Your task to perform on an android device: turn off sleep mode Image 0: 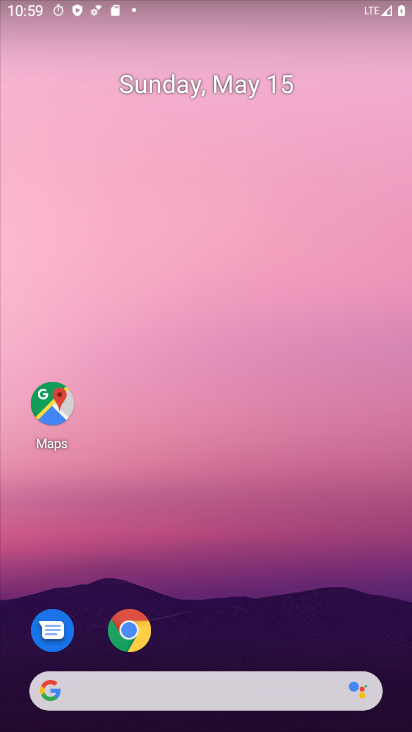
Step 0: drag from (292, 582) to (291, 118)
Your task to perform on an android device: turn off sleep mode Image 1: 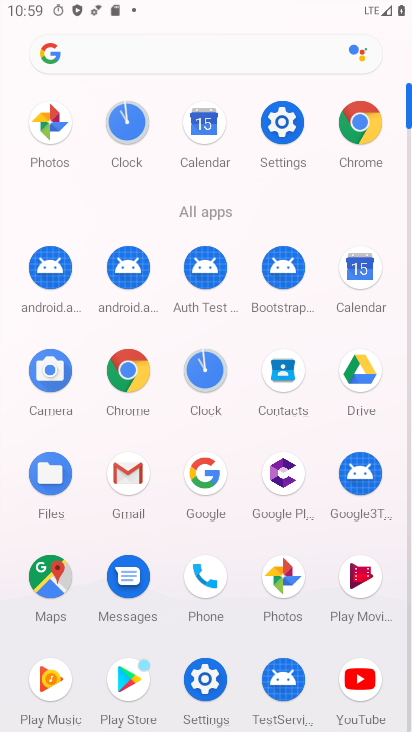
Step 1: click (272, 118)
Your task to perform on an android device: turn off sleep mode Image 2: 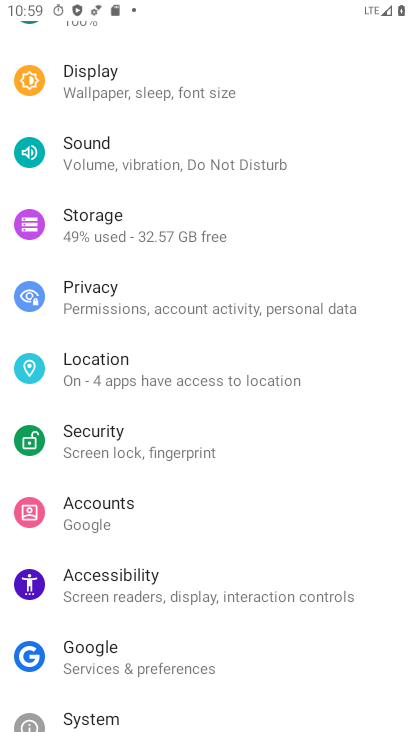
Step 2: drag from (207, 150) to (144, 668)
Your task to perform on an android device: turn off sleep mode Image 3: 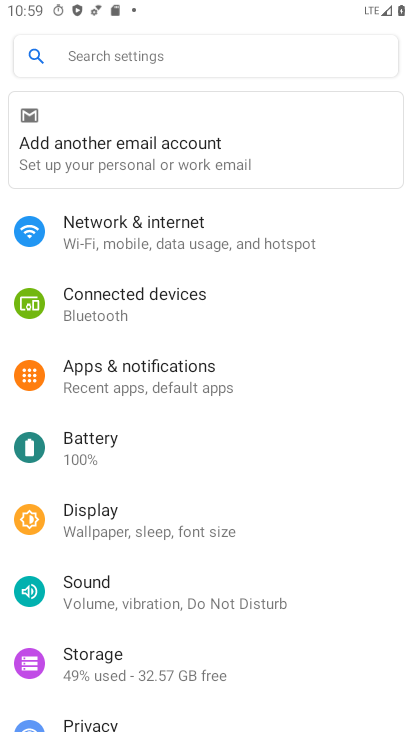
Step 3: click (91, 54)
Your task to perform on an android device: turn off sleep mode Image 4: 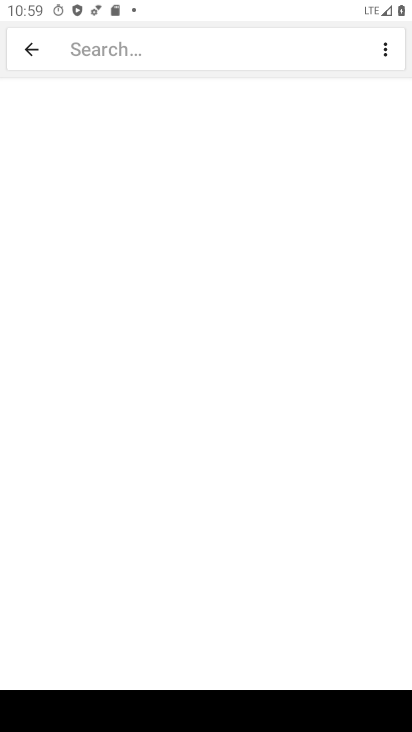
Step 4: type "sleep mode"
Your task to perform on an android device: turn off sleep mode Image 5: 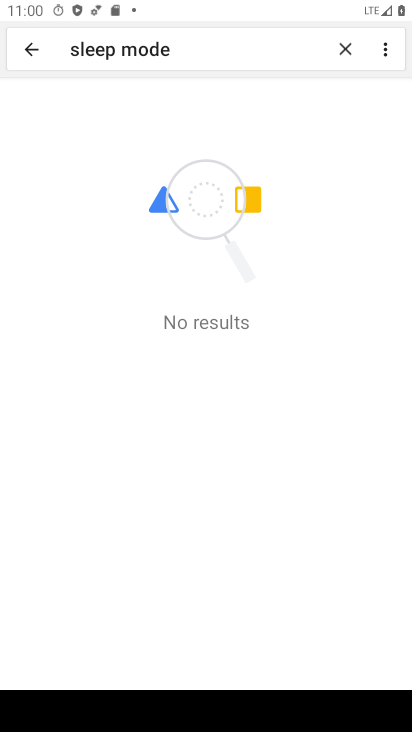
Step 5: task complete